Your task to perform on an android device: Open the calendar app, open the side menu, and click the "Day" option Image 0: 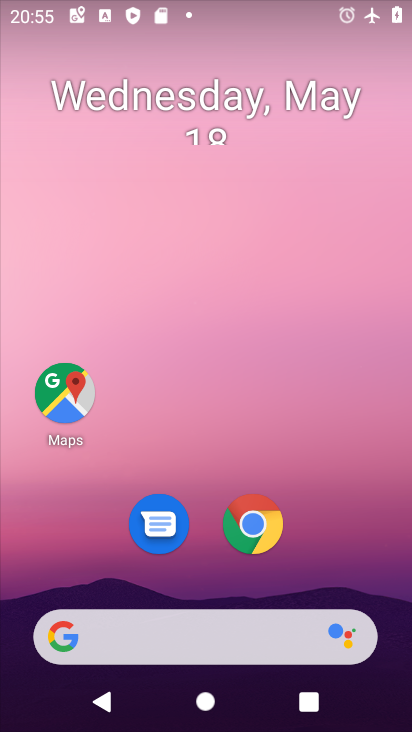
Step 0: drag from (351, 502) to (327, 49)
Your task to perform on an android device: Open the calendar app, open the side menu, and click the "Day" option Image 1: 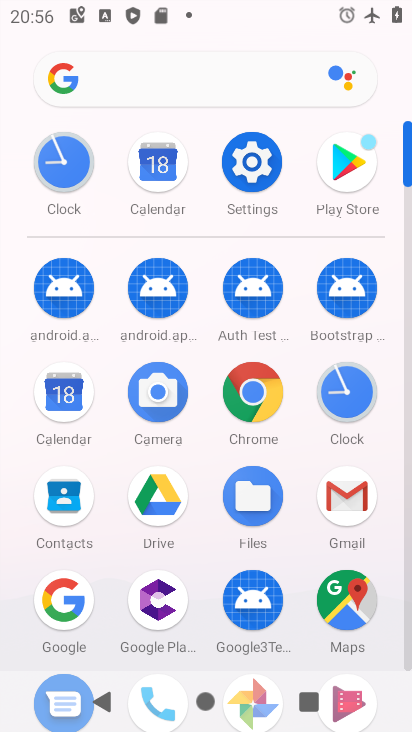
Step 1: click (165, 155)
Your task to perform on an android device: Open the calendar app, open the side menu, and click the "Day" option Image 2: 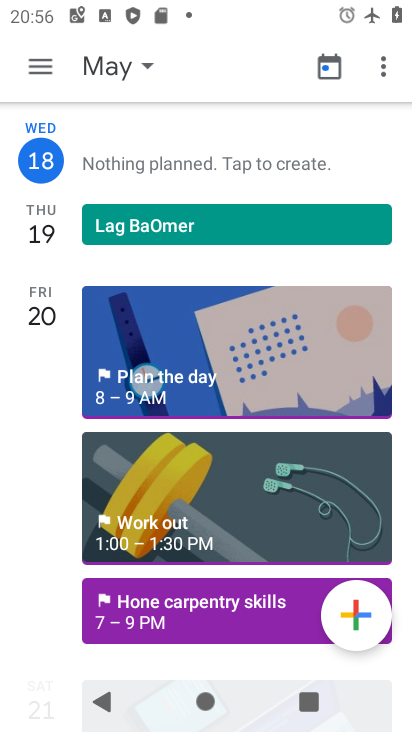
Step 2: click (37, 65)
Your task to perform on an android device: Open the calendar app, open the side menu, and click the "Day" option Image 3: 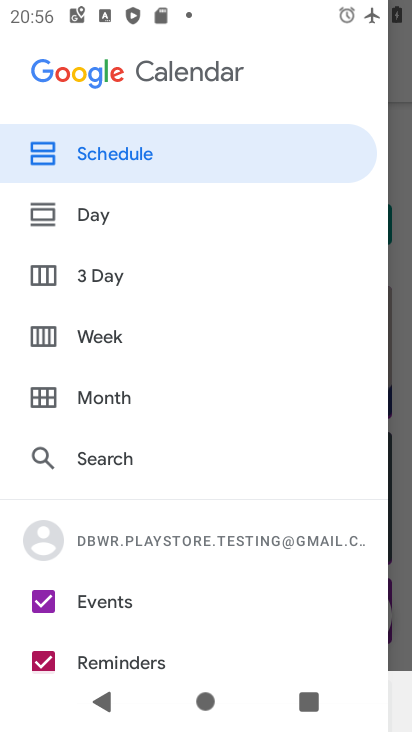
Step 3: click (35, 202)
Your task to perform on an android device: Open the calendar app, open the side menu, and click the "Day" option Image 4: 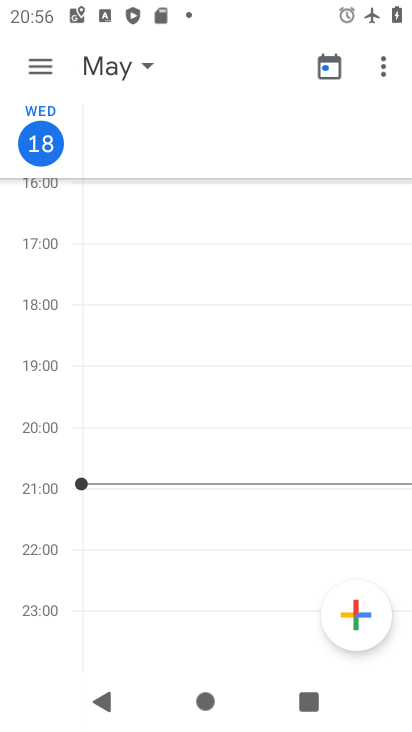
Step 4: task complete